Your task to perform on an android device: turn smart compose on in the gmail app Image 0: 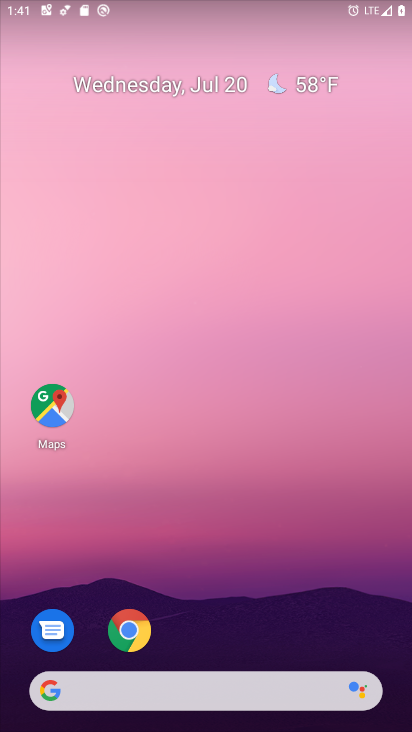
Step 0: drag from (146, 680) to (169, 85)
Your task to perform on an android device: turn smart compose on in the gmail app Image 1: 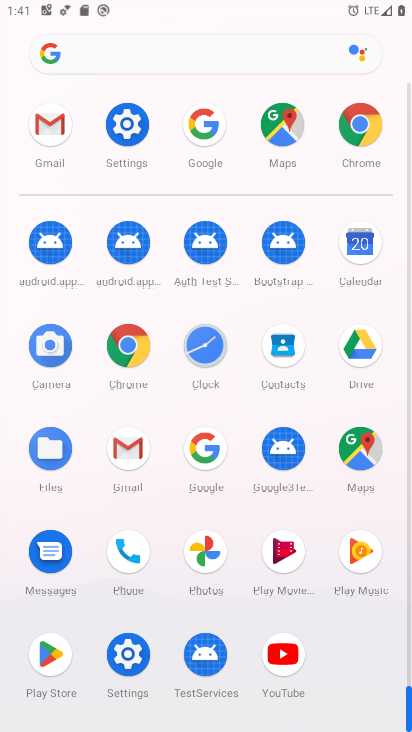
Step 1: click (127, 475)
Your task to perform on an android device: turn smart compose on in the gmail app Image 2: 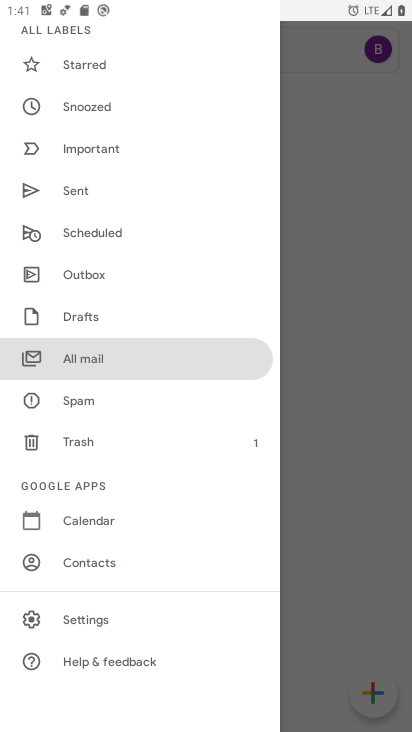
Step 2: drag from (122, 514) to (188, 0)
Your task to perform on an android device: turn smart compose on in the gmail app Image 3: 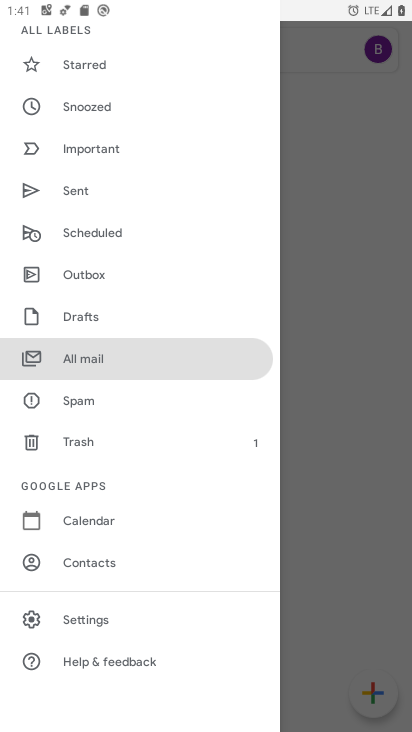
Step 3: click (94, 620)
Your task to perform on an android device: turn smart compose on in the gmail app Image 4: 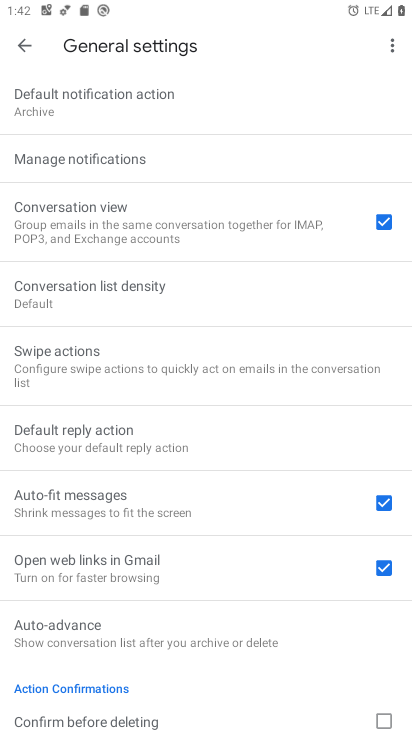
Step 4: drag from (238, 609) to (261, 409)
Your task to perform on an android device: turn smart compose on in the gmail app Image 5: 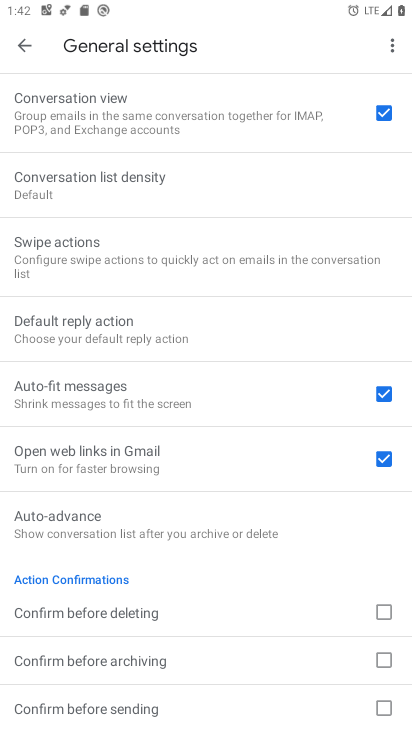
Step 5: drag from (212, 511) to (285, 54)
Your task to perform on an android device: turn smart compose on in the gmail app Image 6: 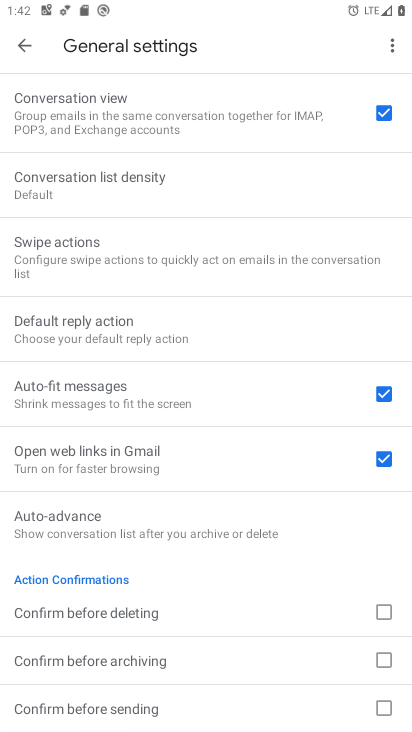
Step 6: click (24, 48)
Your task to perform on an android device: turn smart compose on in the gmail app Image 7: 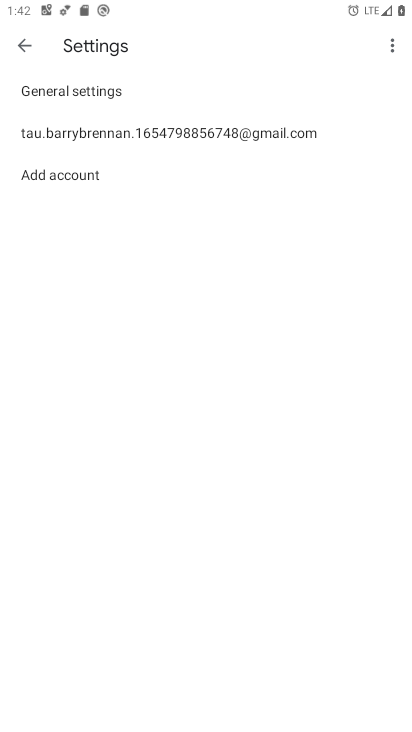
Step 7: click (184, 142)
Your task to perform on an android device: turn smart compose on in the gmail app Image 8: 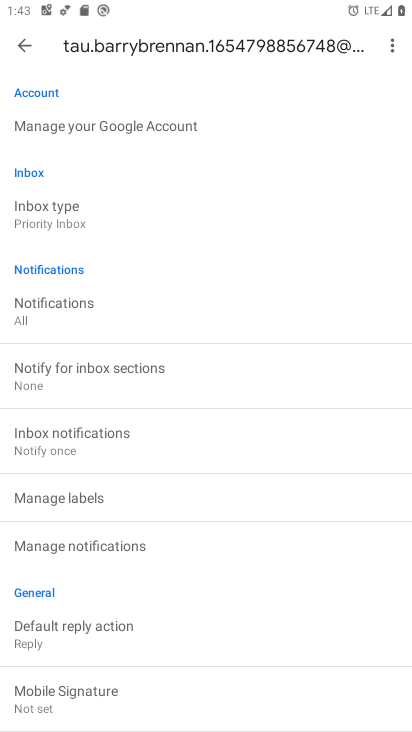
Step 8: task complete